Your task to perform on an android device: What's the weather going to be this weekend? Image 0: 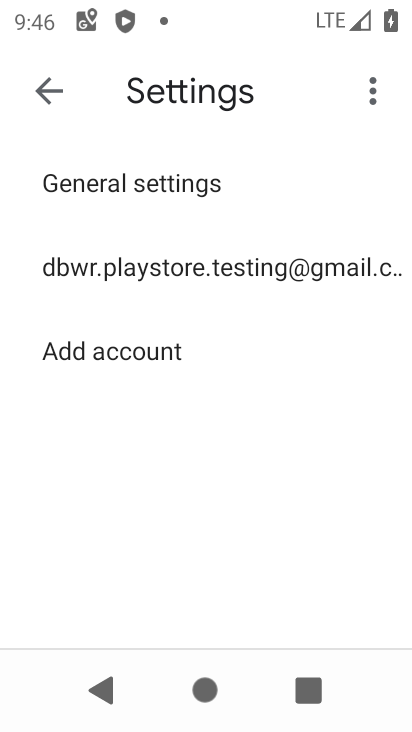
Step 0: press home button
Your task to perform on an android device: What's the weather going to be this weekend? Image 1: 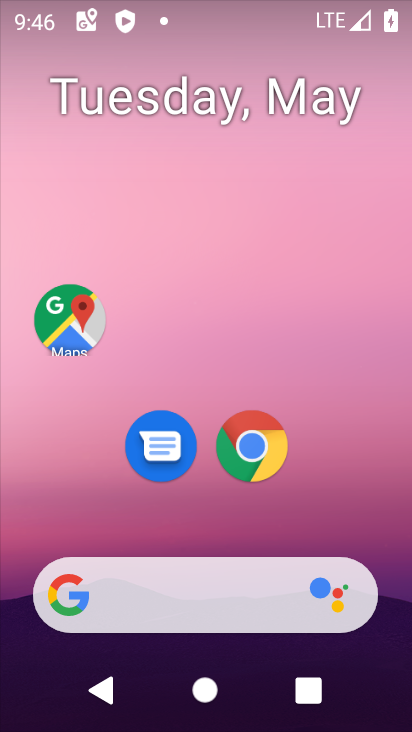
Step 1: drag from (21, 214) to (350, 223)
Your task to perform on an android device: What's the weather going to be this weekend? Image 2: 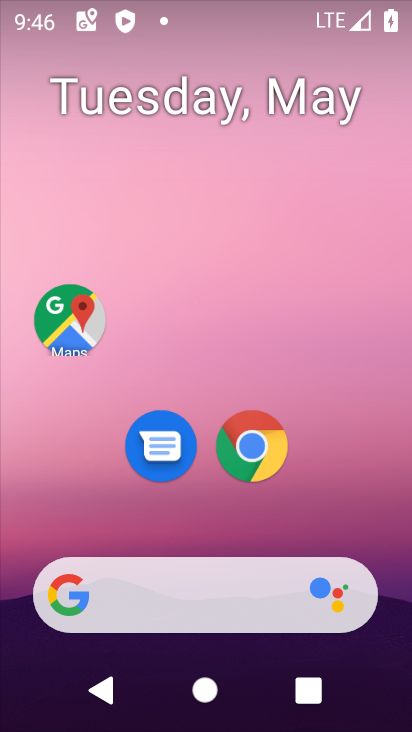
Step 2: drag from (16, 216) to (374, 167)
Your task to perform on an android device: What's the weather going to be this weekend? Image 3: 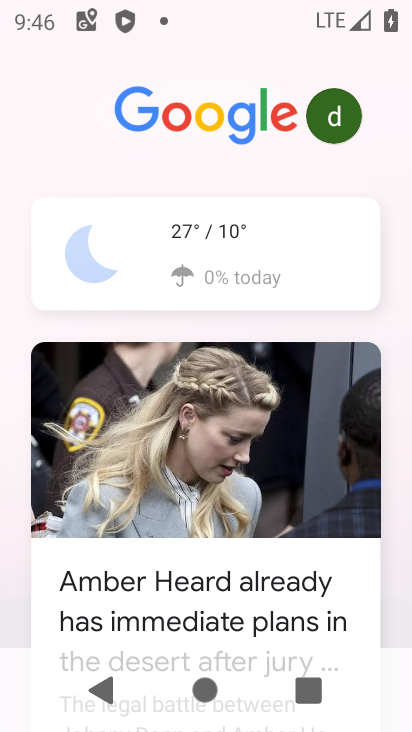
Step 3: click (93, 249)
Your task to perform on an android device: What's the weather going to be this weekend? Image 4: 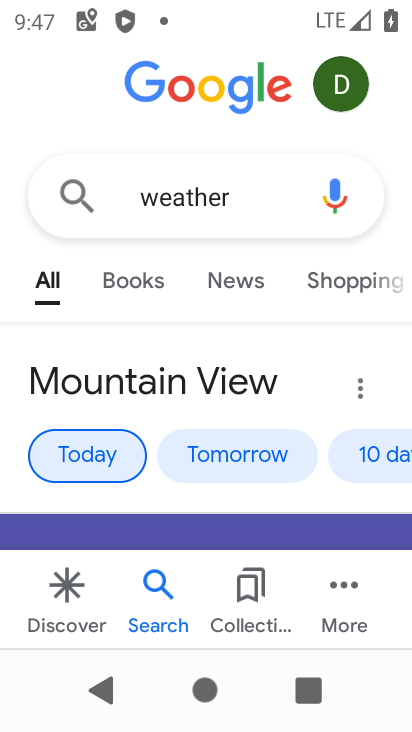
Step 4: click (376, 471)
Your task to perform on an android device: What's the weather going to be this weekend? Image 5: 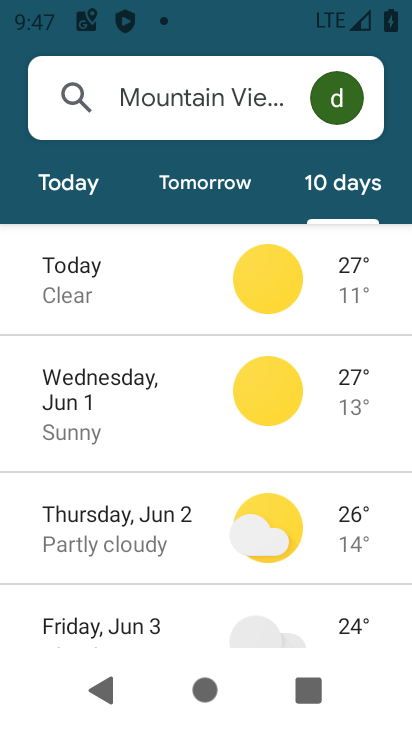
Step 5: task complete